Your task to perform on an android device: Open notification settings Image 0: 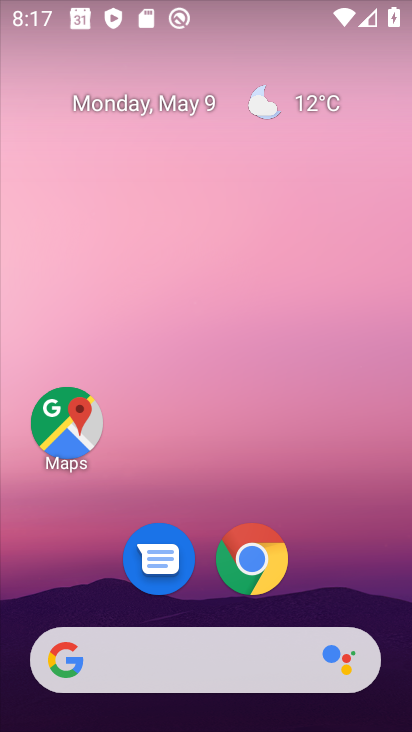
Step 0: drag from (168, 587) to (370, 21)
Your task to perform on an android device: Open notification settings Image 1: 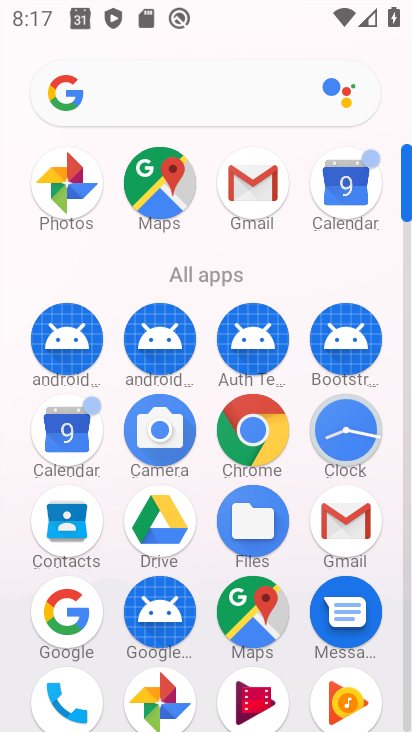
Step 1: drag from (178, 628) to (264, 77)
Your task to perform on an android device: Open notification settings Image 2: 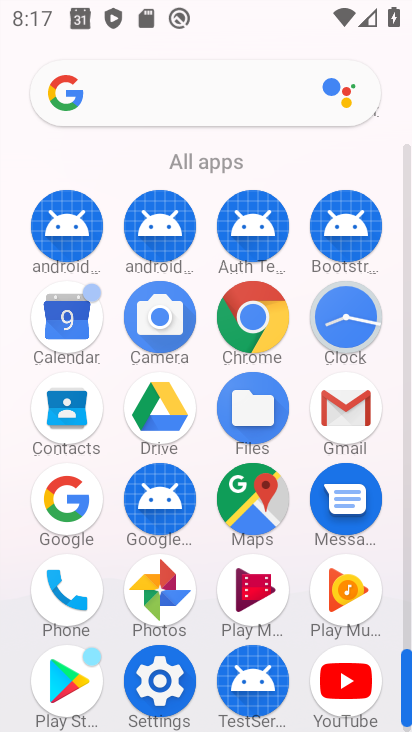
Step 2: click (157, 683)
Your task to perform on an android device: Open notification settings Image 3: 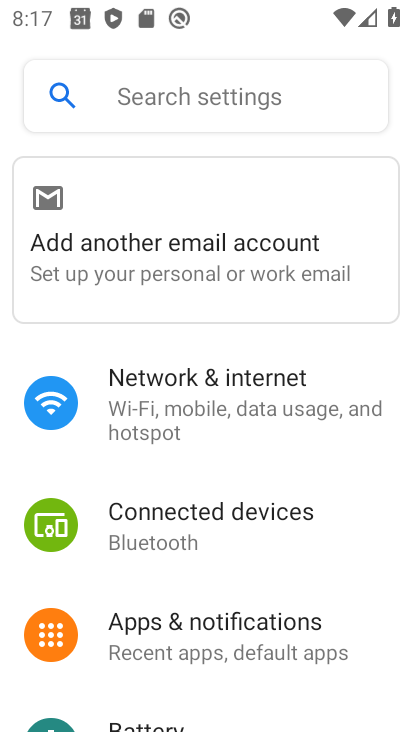
Step 3: click (180, 640)
Your task to perform on an android device: Open notification settings Image 4: 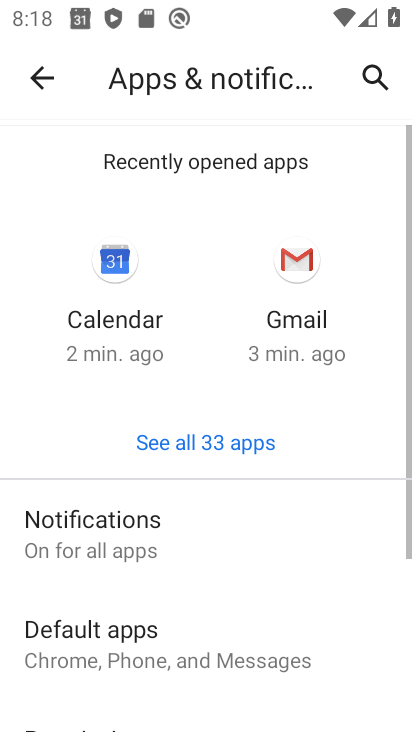
Step 4: task complete